Your task to perform on an android device: open sync settings in chrome Image 0: 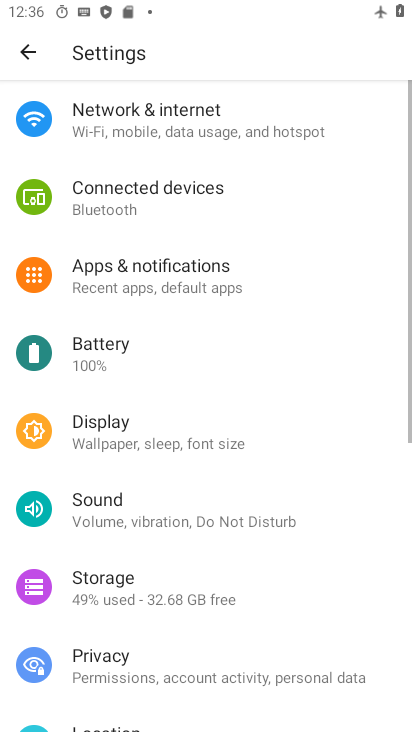
Step 0: press home button
Your task to perform on an android device: open sync settings in chrome Image 1: 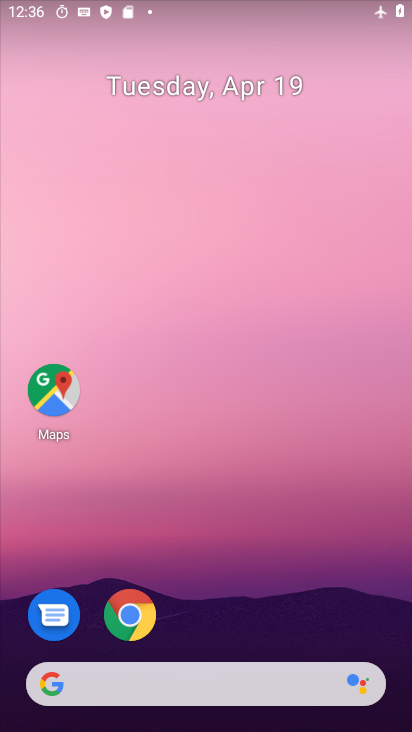
Step 1: drag from (381, 605) to (368, 83)
Your task to perform on an android device: open sync settings in chrome Image 2: 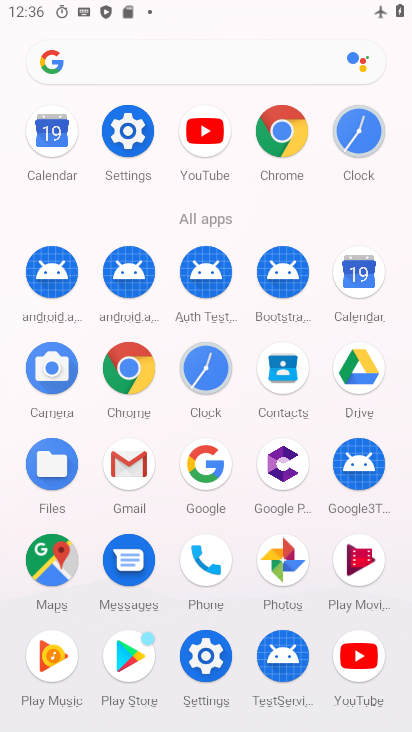
Step 2: click (126, 379)
Your task to perform on an android device: open sync settings in chrome Image 3: 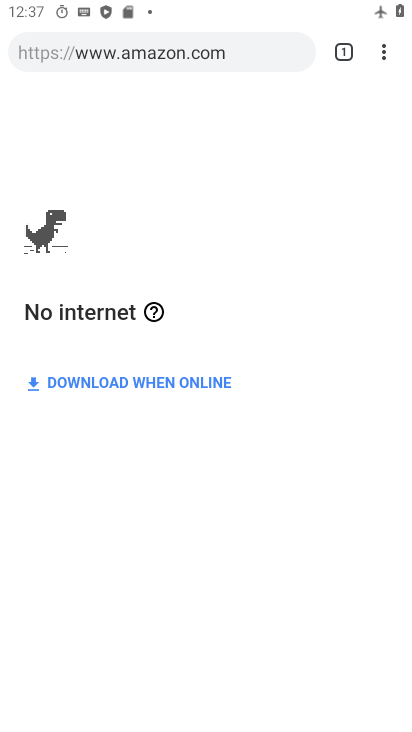
Step 3: click (385, 48)
Your task to perform on an android device: open sync settings in chrome Image 4: 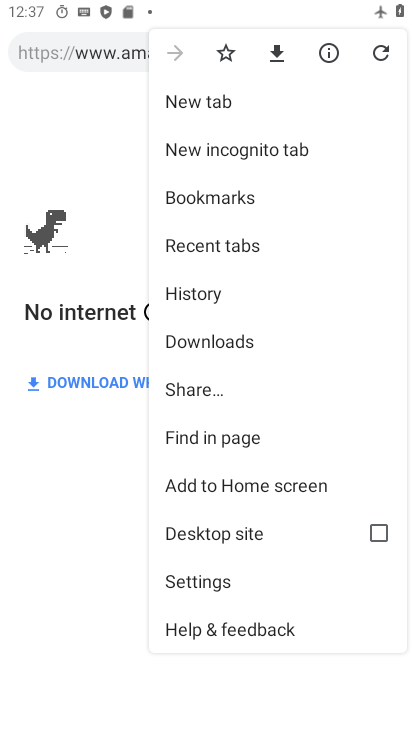
Step 4: click (222, 583)
Your task to perform on an android device: open sync settings in chrome Image 5: 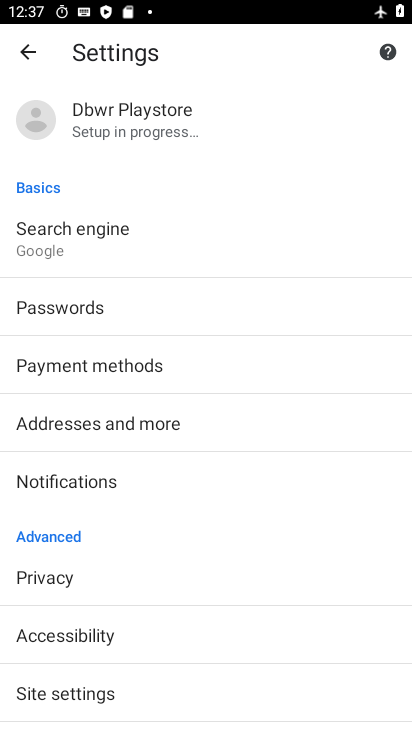
Step 5: drag from (302, 596) to (310, 372)
Your task to perform on an android device: open sync settings in chrome Image 6: 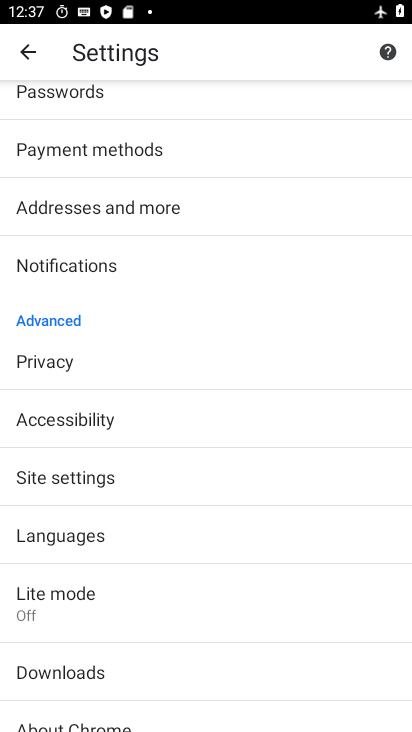
Step 6: drag from (315, 581) to (313, 404)
Your task to perform on an android device: open sync settings in chrome Image 7: 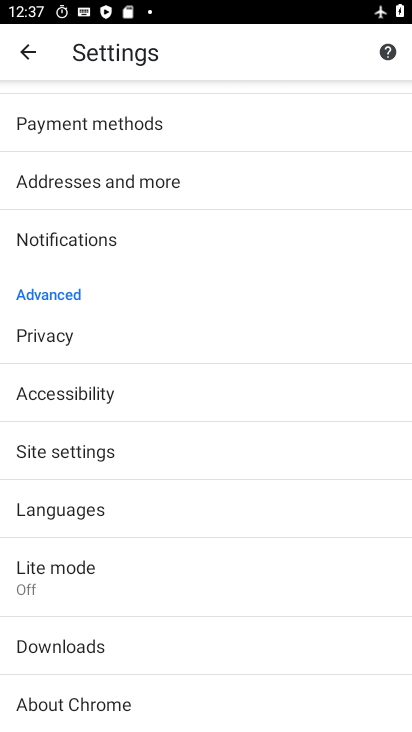
Step 7: click (261, 451)
Your task to perform on an android device: open sync settings in chrome Image 8: 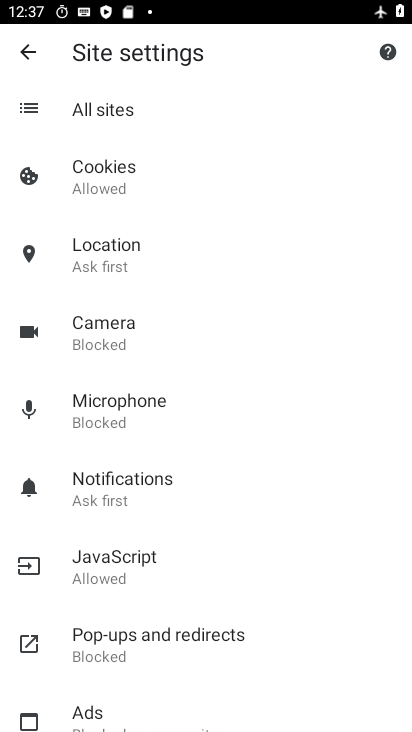
Step 8: drag from (310, 594) to (347, 327)
Your task to perform on an android device: open sync settings in chrome Image 9: 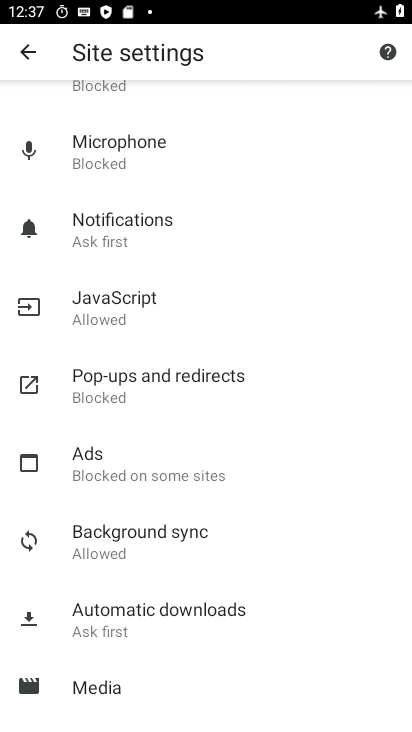
Step 9: drag from (331, 612) to (340, 388)
Your task to perform on an android device: open sync settings in chrome Image 10: 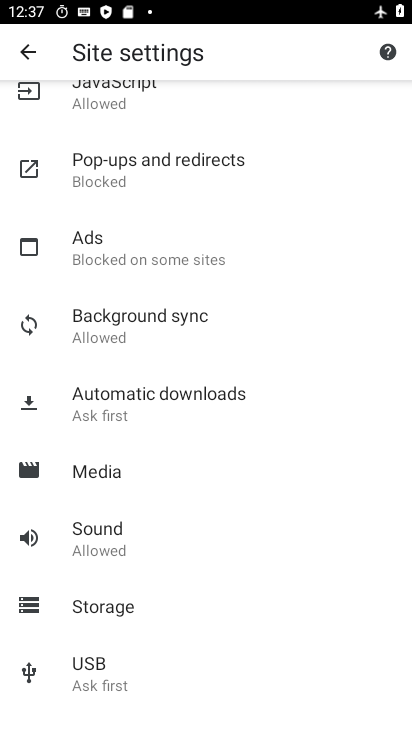
Step 10: click (119, 331)
Your task to perform on an android device: open sync settings in chrome Image 11: 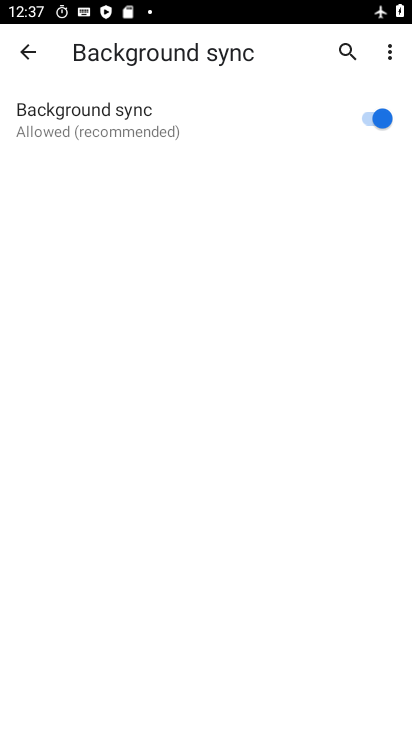
Step 11: task complete